Your task to perform on an android device: check android version Image 0: 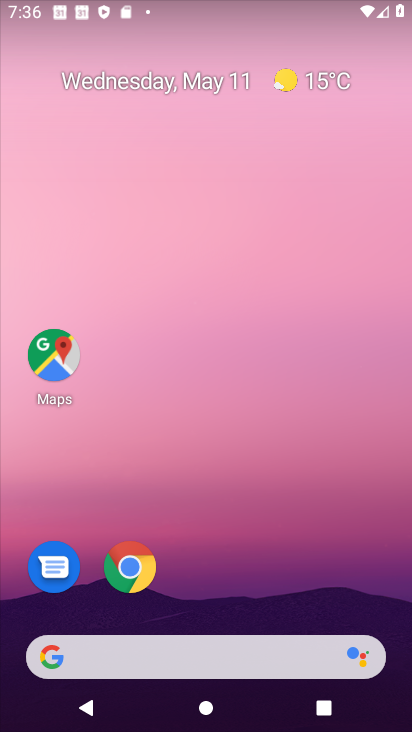
Step 0: press home button
Your task to perform on an android device: check android version Image 1: 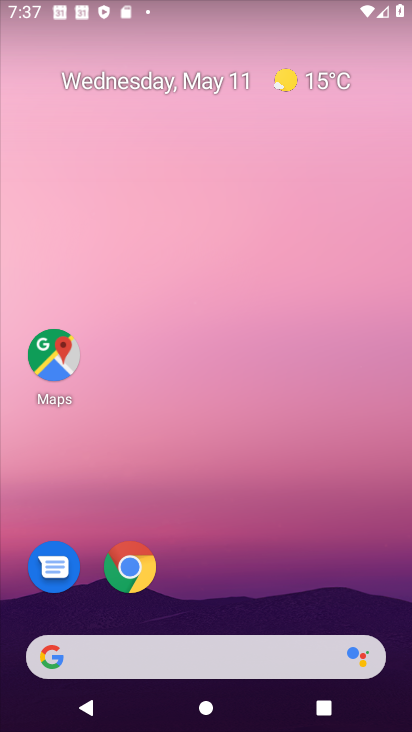
Step 1: drag from (157, 649) to (303, 174)
Your task to perform on an android device: check android version Image 2: 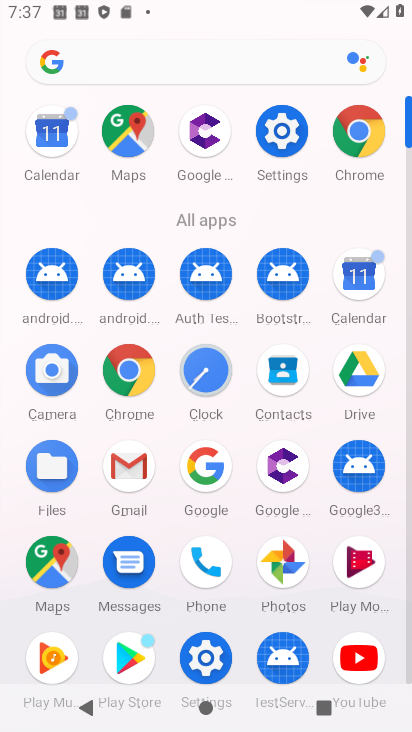
Step 2: click (279, 145)
Your task to perform on an android device: check android version Image 3: 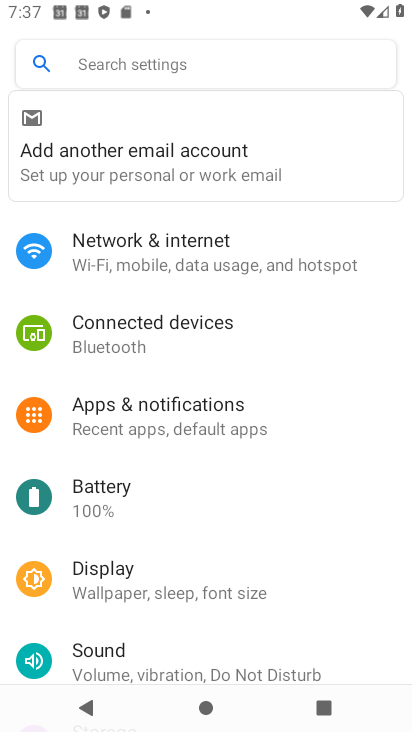
Step 3: drag from (261, 640) to (368, 42)
Your task to perform on an android device: check android version Image 4: 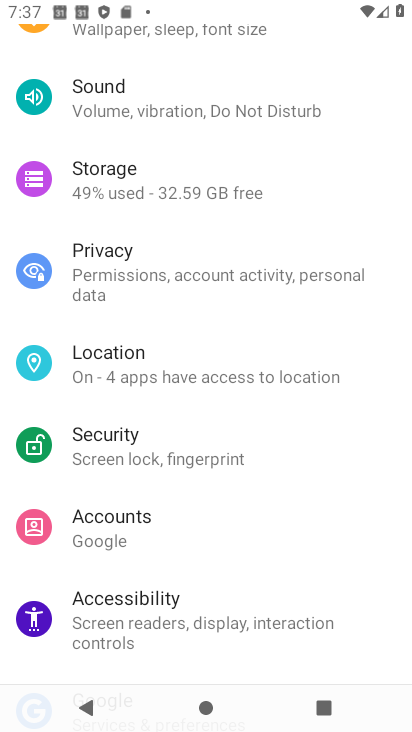
Step 4: drag from (269, 588) to (402, 104)
Your task to perform on an android device: check android version Image 5: 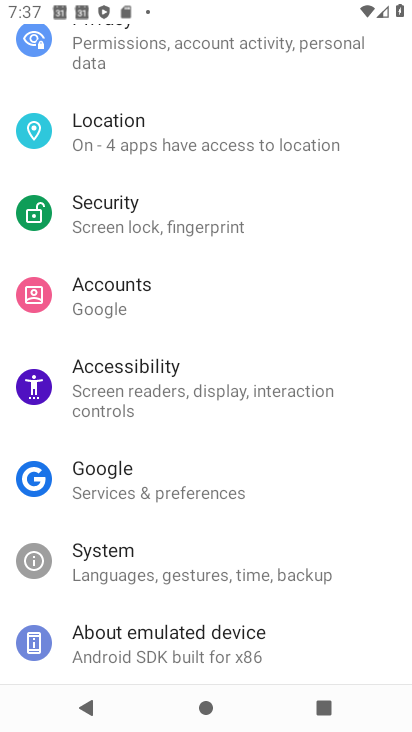
Step 5: click (202, 652)
Your task to perform on an android device: check android version Image 6: 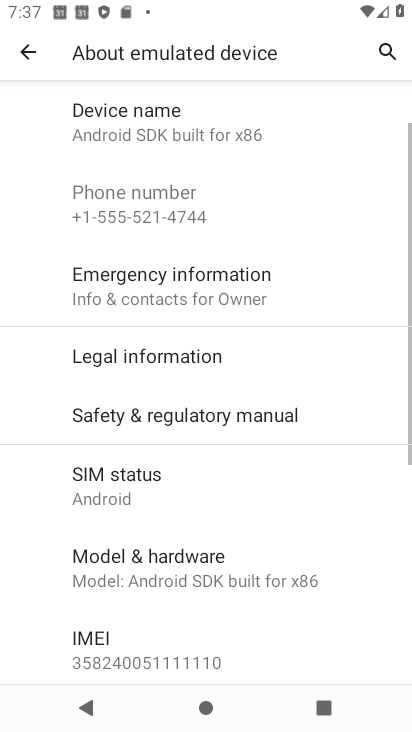
Step 6: drag from (283, 632) to (410, 42)
Your task to perform on an android device: check android version Image 7: 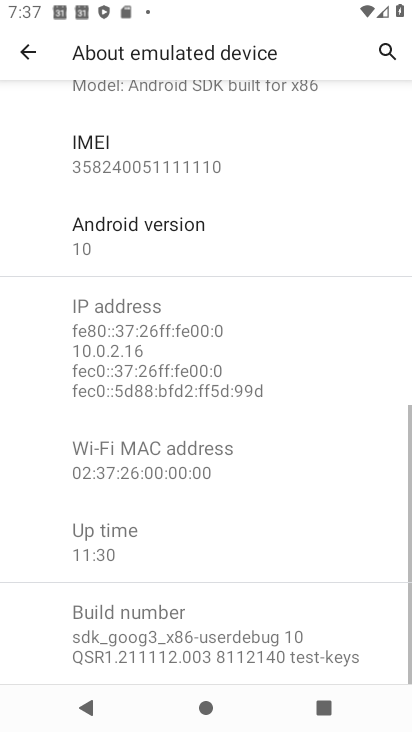
Step 7: click (171, 225)
Your task to perform on an android device: check android version Image 8: 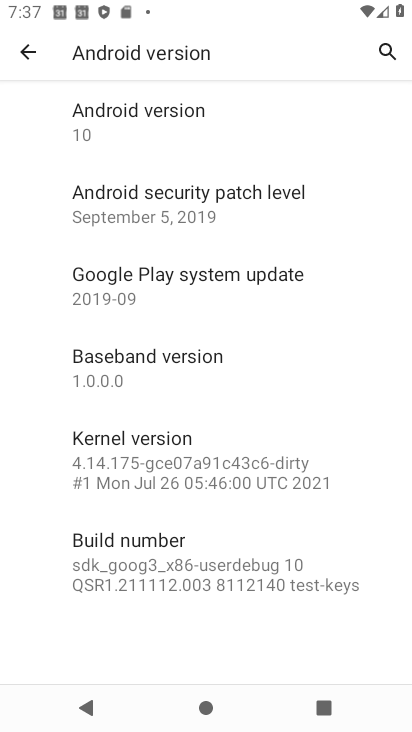
Step 8: task complete